Your task to perform on an android device: set default search engine in the chrome app Image 0: 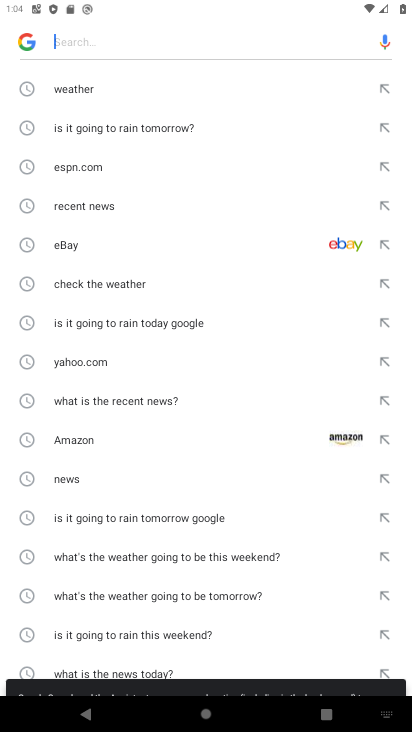
Step 0: press home button
Your task to perform on an android device: set default search engine in the chrome app Image 1: 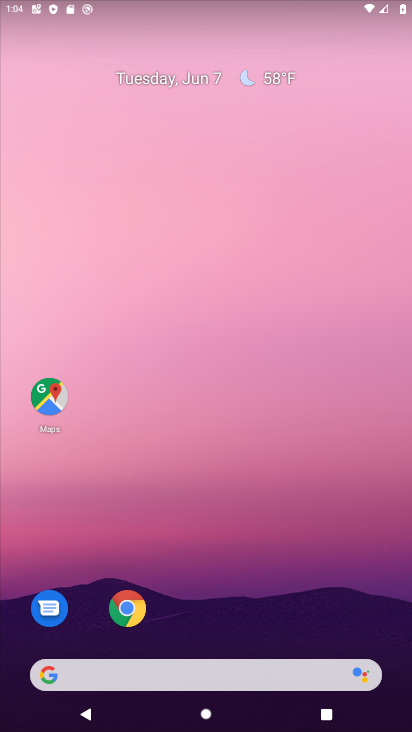
Step 1: drag from (219, 557) to (161, 73)
Your task to perform on an android device: set default search engine in the chrome app Image 2: 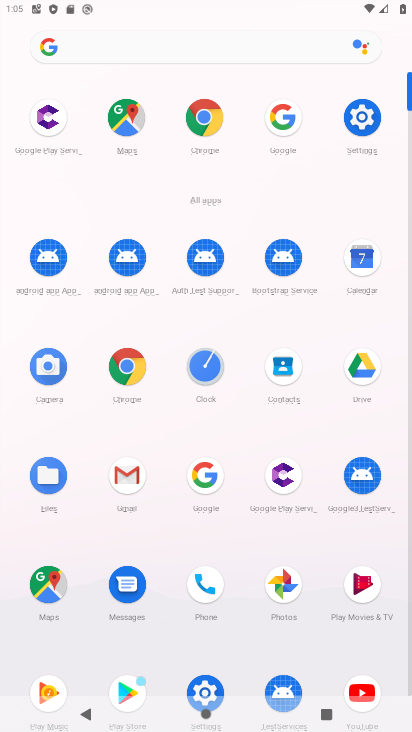
Step 2: click (132, 363)
Your task to perform on an android device: set default search engine in the chrome app Image 3: 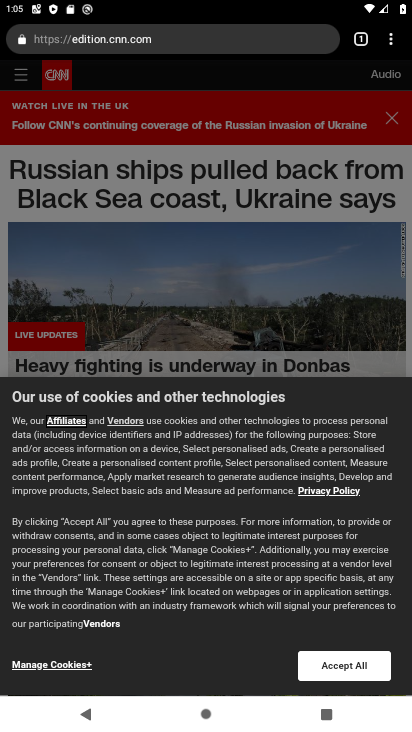
Step 3: drag from (396, 34) to (283, 478)
Your task to perform on an android device: set default search engine in the chrome app Image 4: 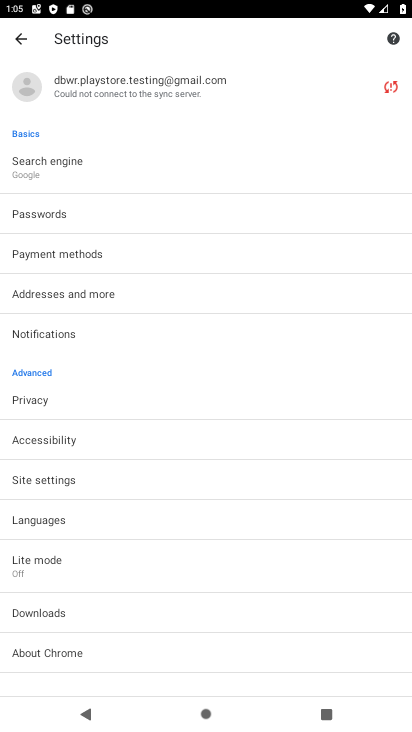
Step 4: click (55, 167)
Your task to perform on an android device: set default search engine in the chrome app Image 5: 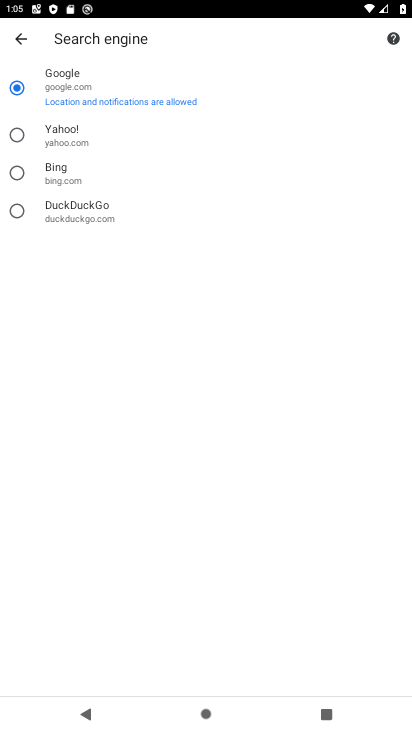
Step 5: task complete